Your task to perform on an android device: Open the stopwatch Image 0: 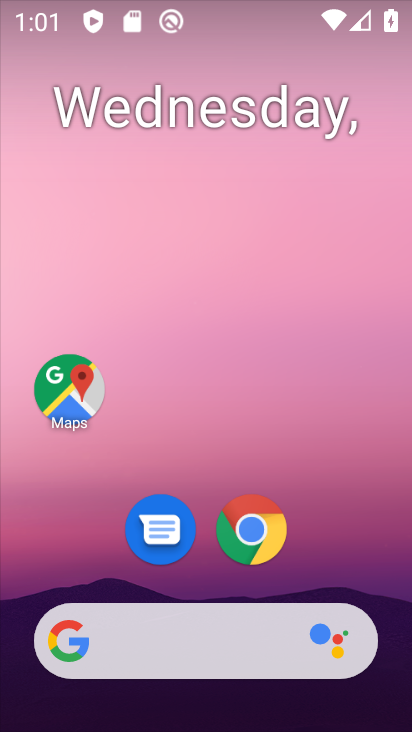
Step 0: drag from (192, 570) to (214, 232)
Your task to perform on an android device: Open the stopwatch Image 1: 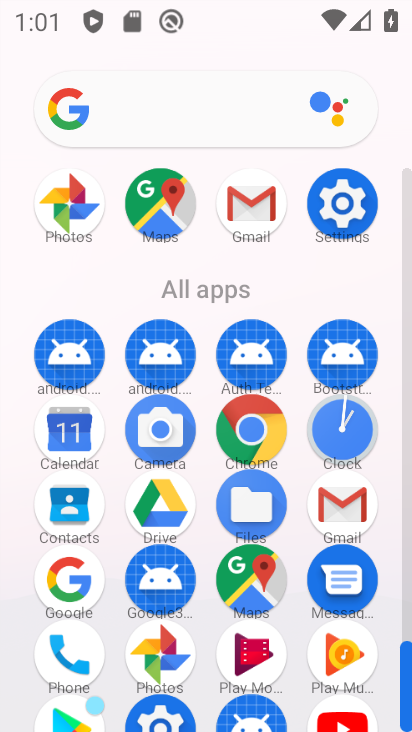
Step 1: click (330, 443)
Your task to perform on an android device: Open the stopwatch Image 2: 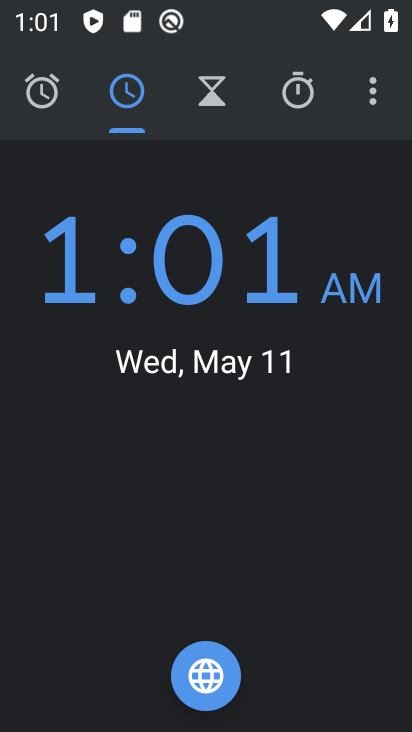
Step 2: click (285, 88)
Your task to perform on an android device: Open the stopwatch Image 3: 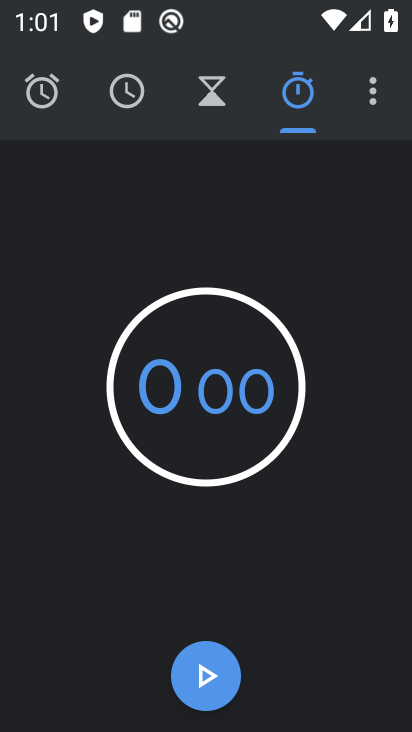
Step 3: task complete